Your task to perform on an android device: Open notification settings Image 0: 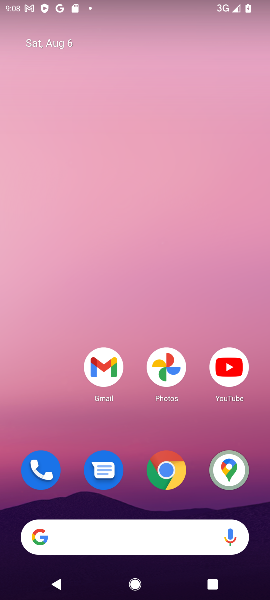
Step 0: drag from (130, 545) to (125, 150)
Your task to perform on an android device: Open notification settings Image 1: 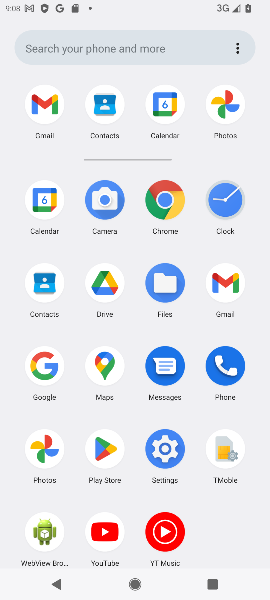
Step 1: click (177, 457)
Your task to perform on an android device: Open notification settings Image 2: 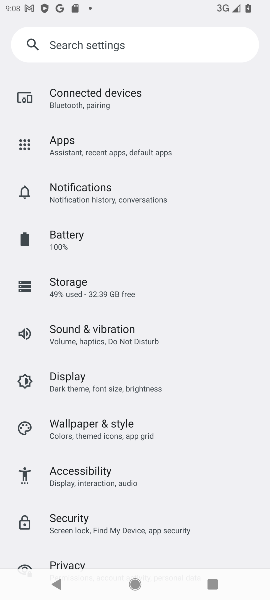
Step 2: click (120, 197)
Your task to perform on an android device: Open notification settings Image 3: 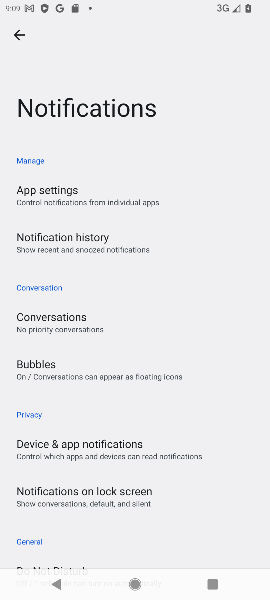
Step 3: task complete